Your task to perform on an android device: turn on showing notifications on the lock screen Image 0: 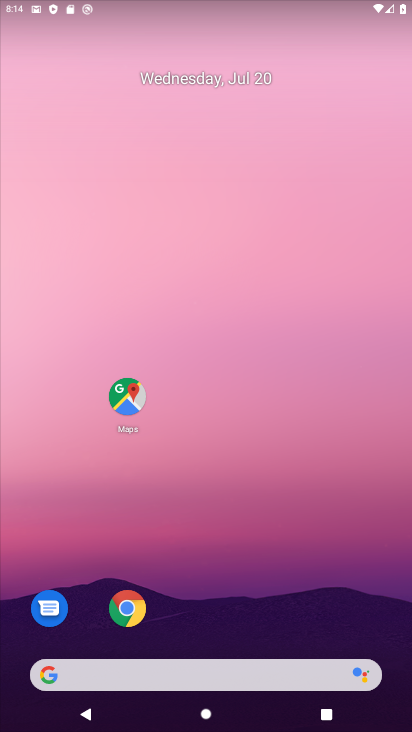
Step 0: drag from (18, 730) to (169, 158)
Your task to perform on an android device: turn on showing notifications on the lock screen Image 1: 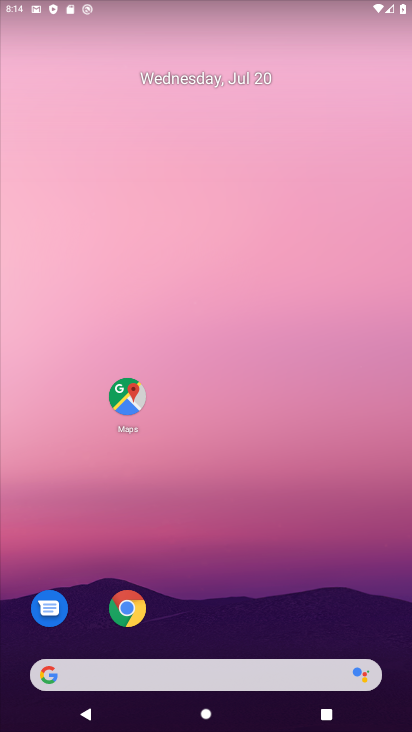
Step 1: drag from (98, 400) to (224, 169)
Your task to perform on an android device: turn on showing notifications on the lock screen Image 2: 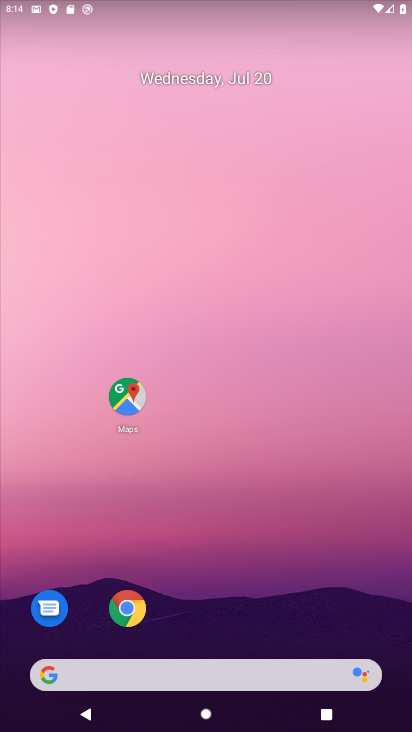
Step 2: drag from (26, 480) to (186, 44)
Your task to perform on an android device: turn on showing notifications on the lock screen Image 3: 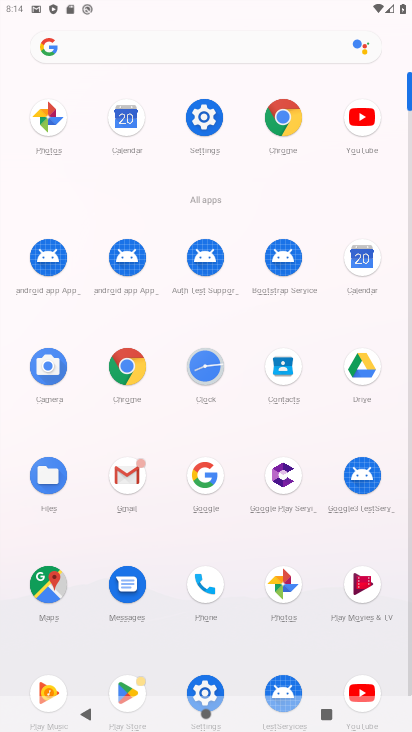
Step 3: click (195, 121)
Your task to perform on an android device: turn on showing notifications on the lock screen Image 4: 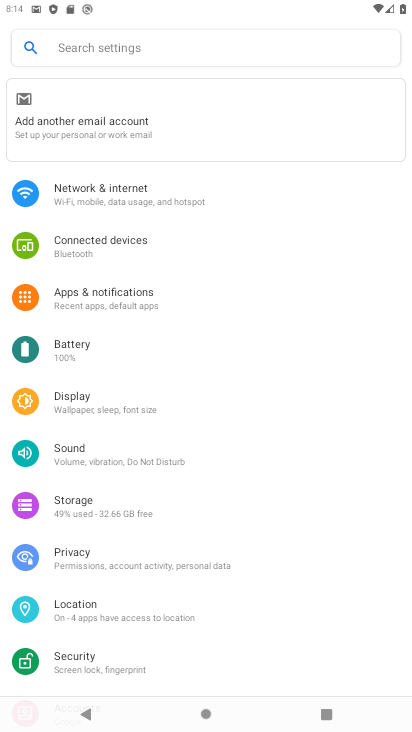
Step 4: click (144, 301)
Your task to perform on an android device: turn on showing notifications on the lock screen Image 5: 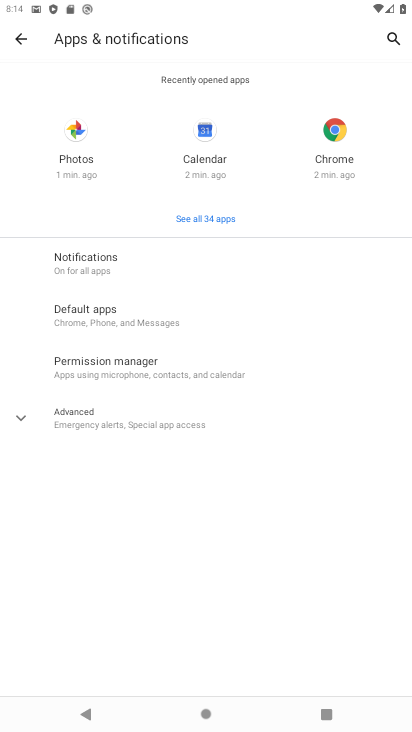
Step 5: click (155, 272)
Your task to perform on an android device: turn on showing notifications on the lock screen Image 6: 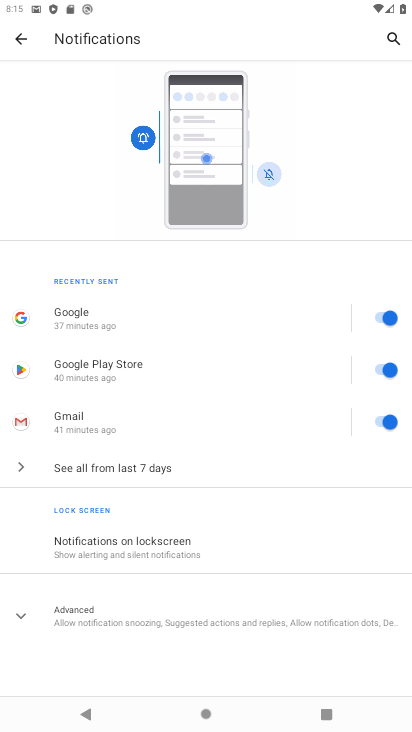
Step 6: click (229, 607)
Your task to perform on an android device: turn on showing notifications on the lock screen Image 7: 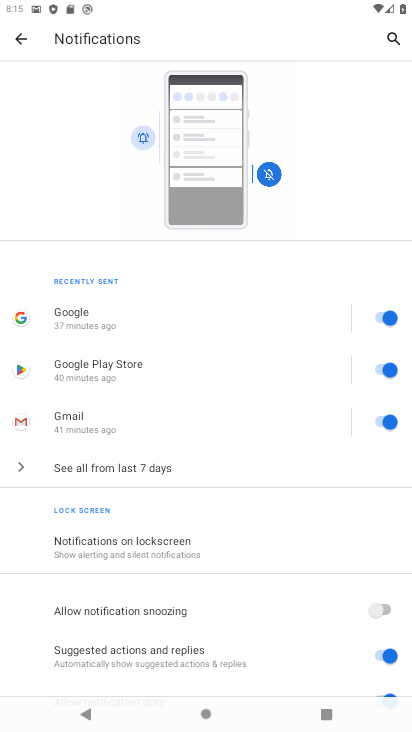
Step 7: drag from (29, 687) to (161, 168)
Your task to perform on an android device: turn on showing notifications on the lock screen Image 8: 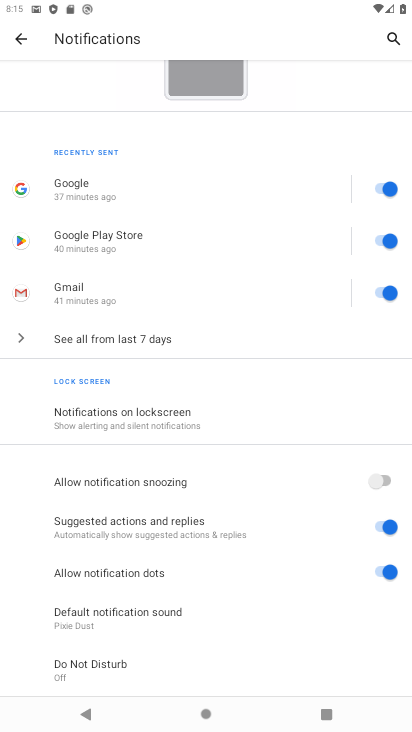
Step 8: drag from (0, 678) to (212, 191)
Your task to perform on an android device: turn on showing notifications on the lock screen Image 9: 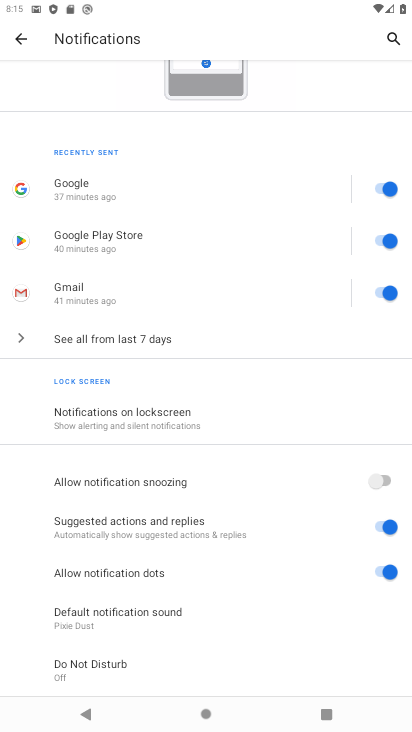
Step 9: click (100, 414)
Your task to perform on an android device: turn on showing notifications on the lock screen Image 10: 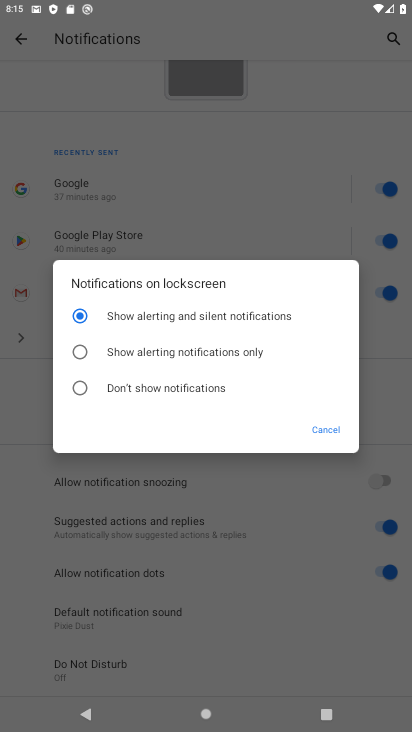
Step 10: task complete